Your task to perform on an android device: Go to eBay Image 0: 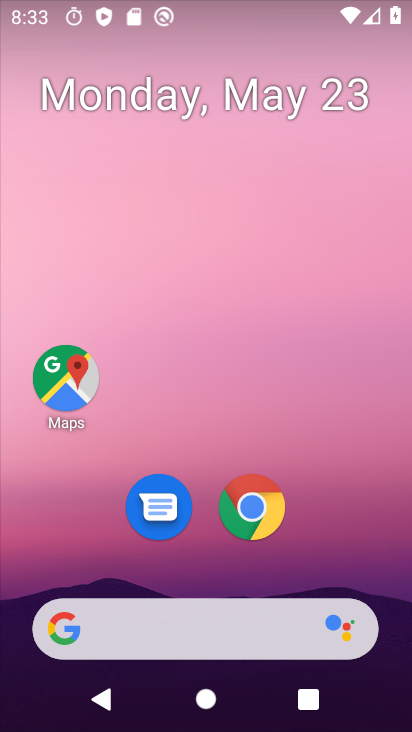
Step 0: click (244, 506)
Your task to perform on an android device: Go to eBay Image 1: 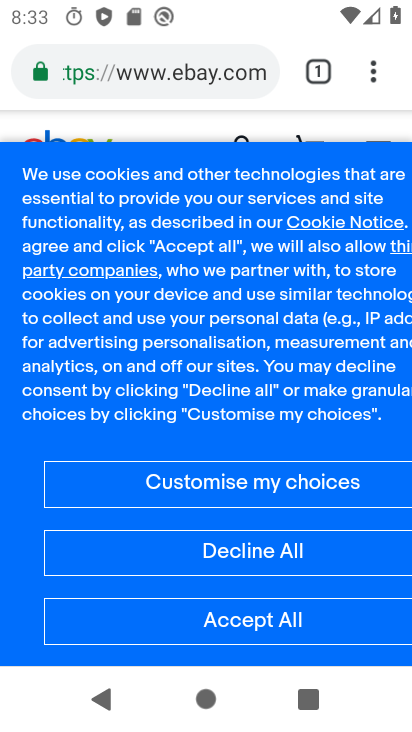
Step 1: press back button
Your task to perform on an android device: Go to eBay Image 2: 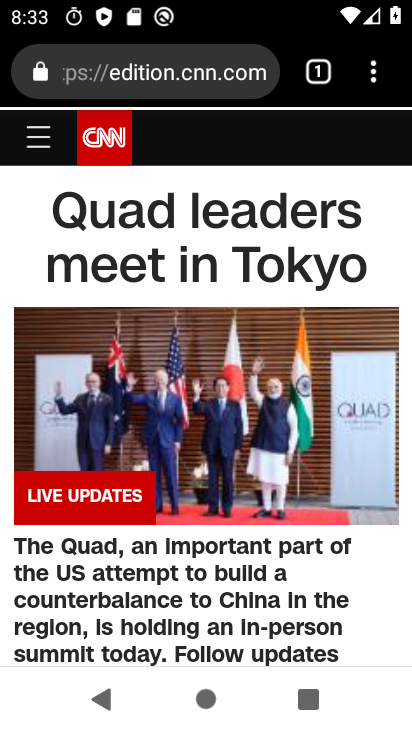
Step 2: click (151, 75)
Your task to perform on an android device: Go to eBay Image 3: 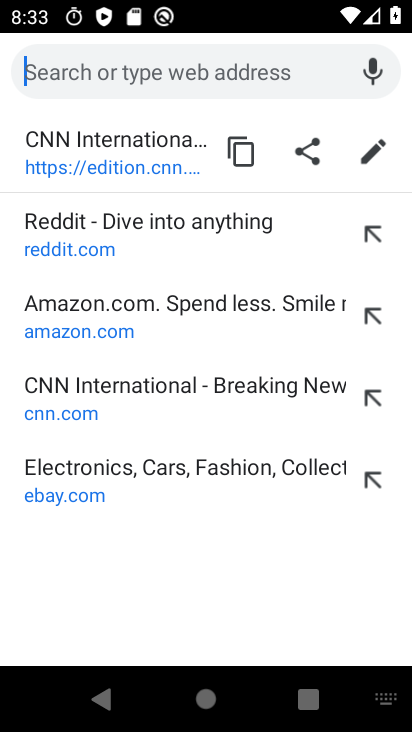
Step 3: type "ebay"
Your task to perform on an android device: Go to eBay Image 4: 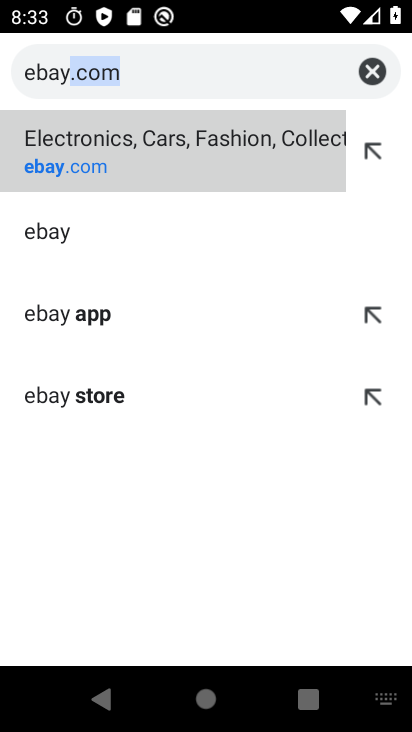
Step 4: click (96, 182)
Your task to perform on an android device: Go to eBay Image 5: 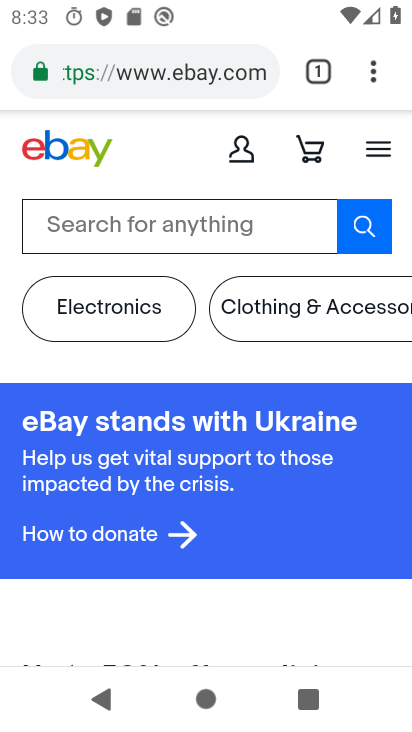
Step 5: task complete